Your task to perform on an android device: Do I have any events this weekend? Image 0: 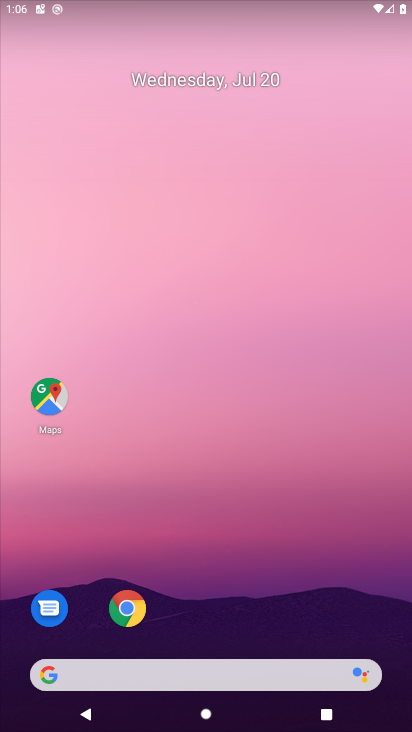
Step 0: drag from (213, 642) to (238, 168)
Your task to perform on an android device: Do I have any events this weekend? Image 1: 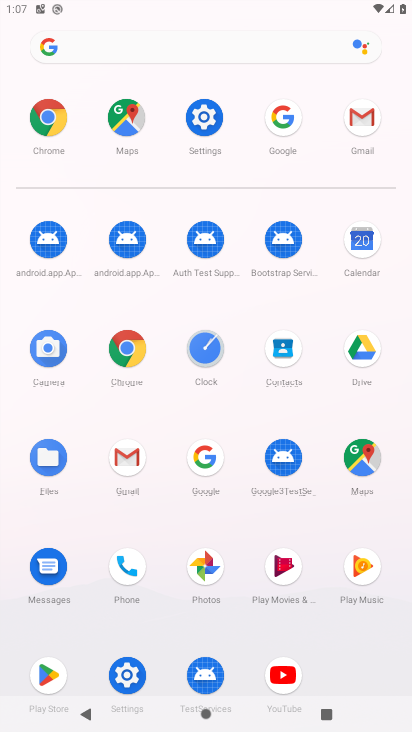
Step 1: click (361, 243)
Your task to perform on an android device: Do I have any events this weekend? Image 2: 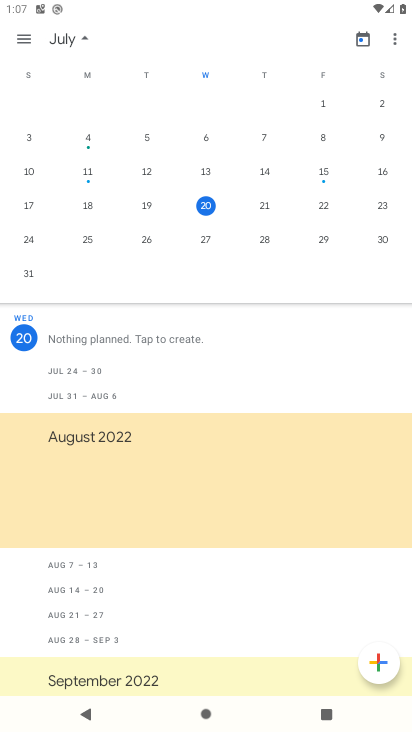
Step 2: click (381, 204)
Your task to perform on an android device: Do I have any events this weekend? Image 3: 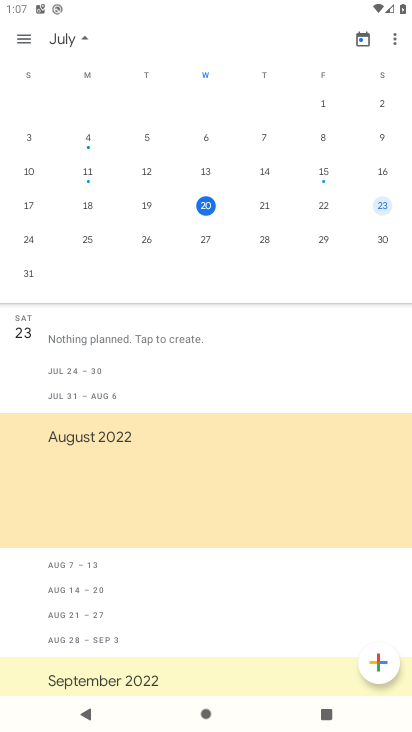
Step 3: task complete